Your task to perform on an android device: check out phone information Image 0: 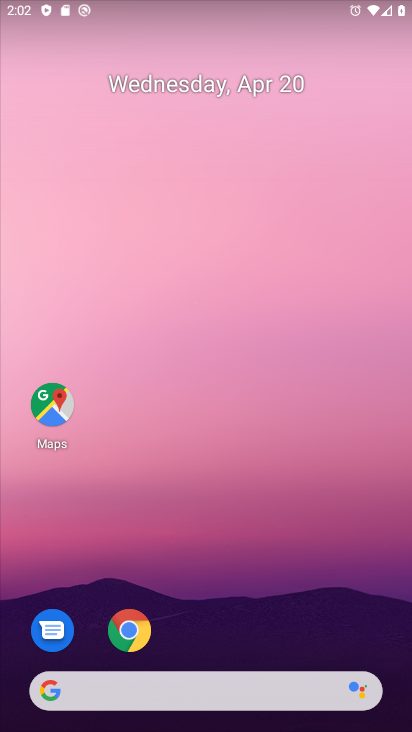
Step 0: press home button
Your task to perform on an android device: check out phone information Image 1: 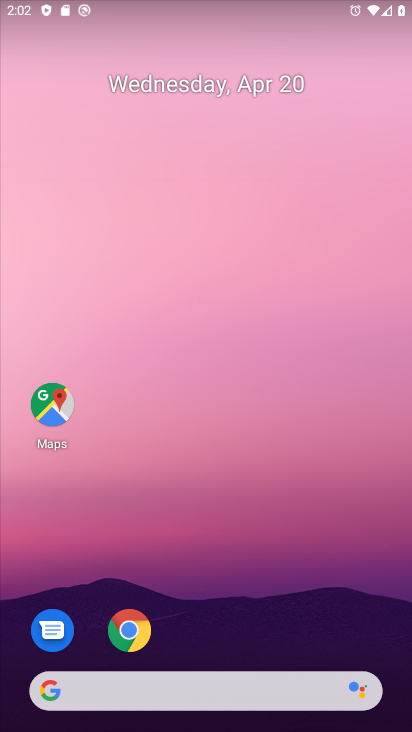
Step 1: drag from (177, 643) to (91, 185)
Your task to perform on an android device: check out phone information Image 2: 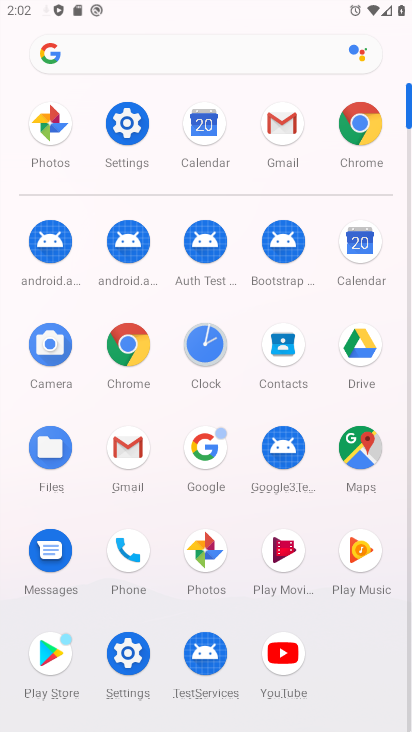
Step 2: click (132, 544)
Your task to perform on an android device: check out phone information Image 3: 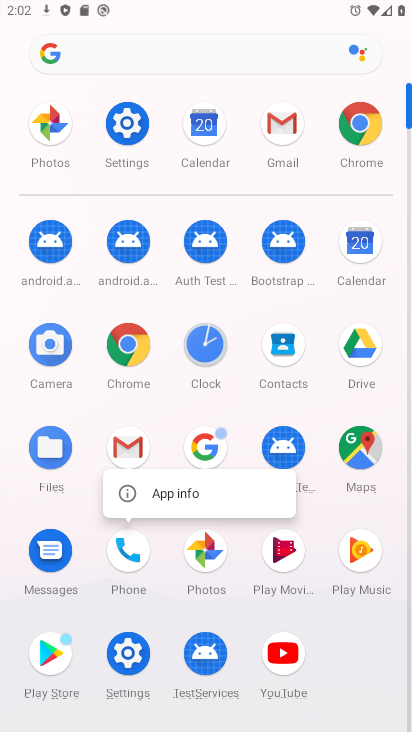
Step 3: click (132, 544)
Your task to perform on an android device: check out phone information Image 4: 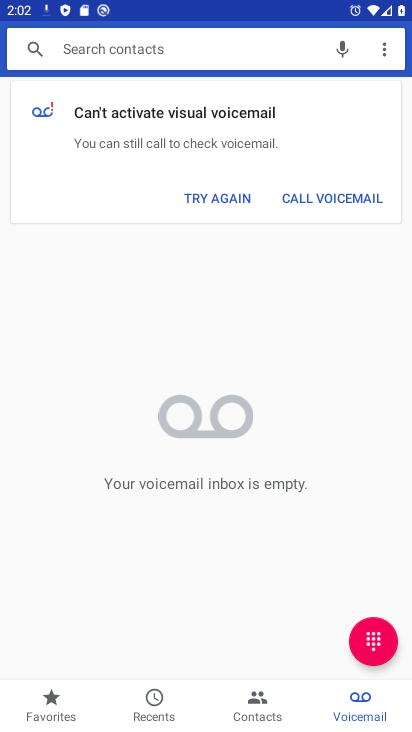
Step 4: click (384, 54)
Your task to perform on an android device: check out phone information Image 5: 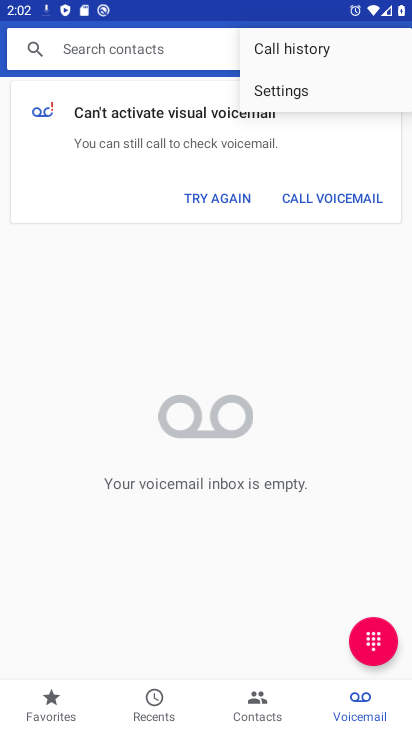
Step 5: click (289, 91)
Your task to perform on an android device: check out phone information Image 6: 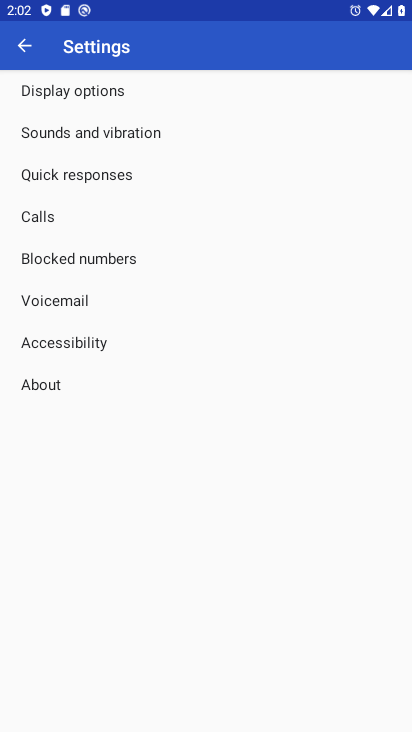
Step 6: click (52, 382)
Your task to perform on an android device: check out phone information Image 7: 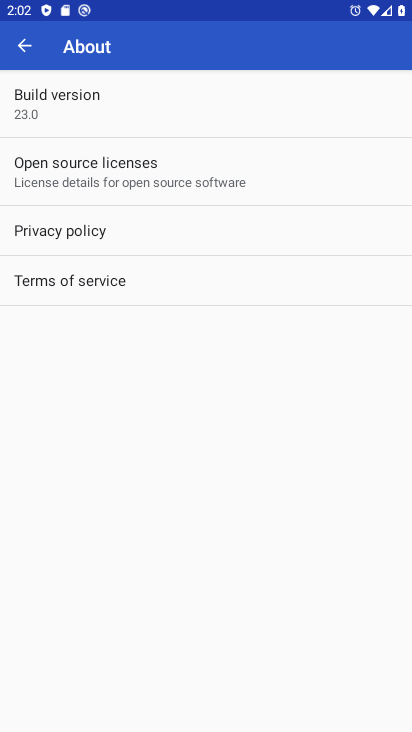
Step 7: task complete